Your task to perform on an android device: choose inbox layout in the gmail app Image 0: 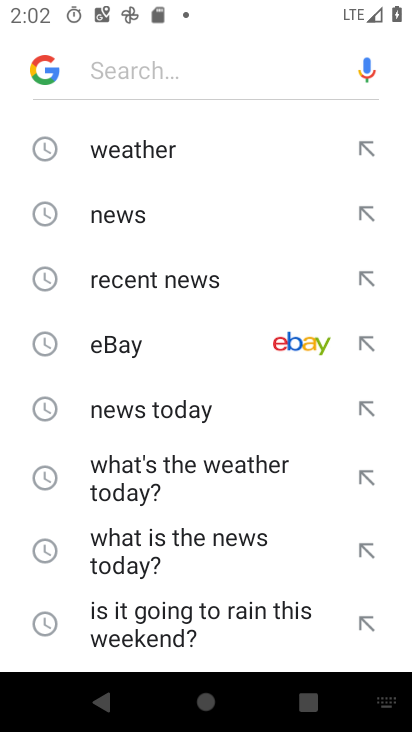
Step 0: press home button
Your task to perform on an android device: choose inbox layout in the gmail app Image 1: 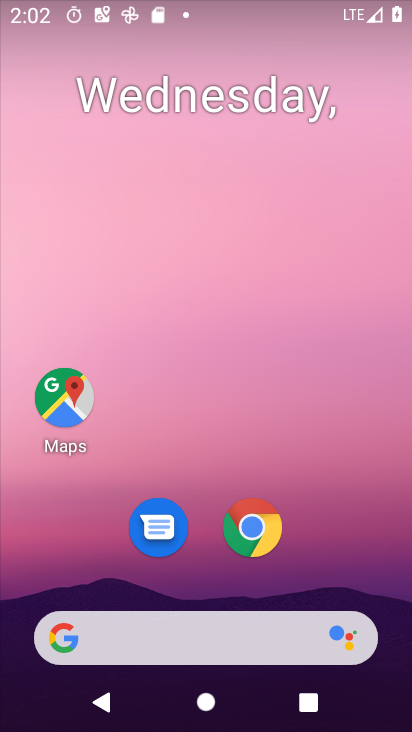
Step 1: drag from (233, 653) to (334, 172)
Your task to perform on an android device: choose inbox layout in the gmail app Image 2: 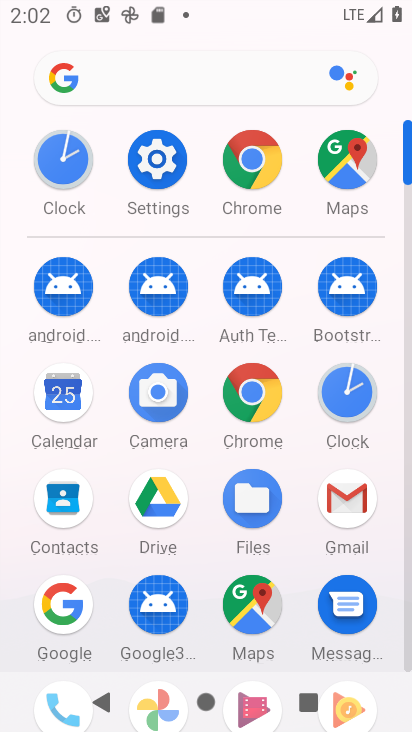
Step 2: click (335, 503)
Your task to perform on an android device: choose inbox layout in the gmail app Image 3: 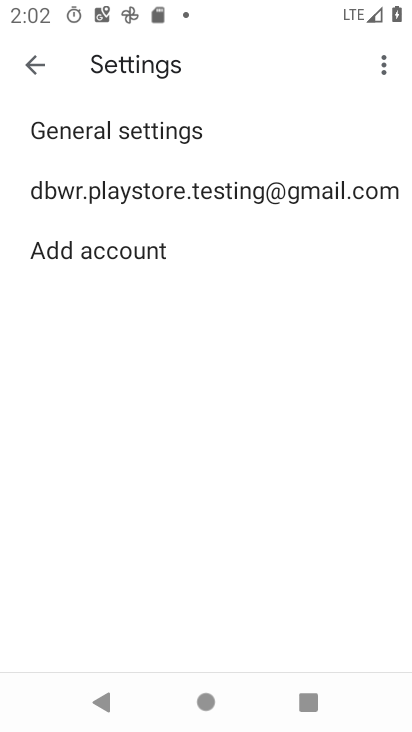
Step 3: click (277, 181)
Your task to perform on an android device: choose inbox layout in the gmail app Image 4: 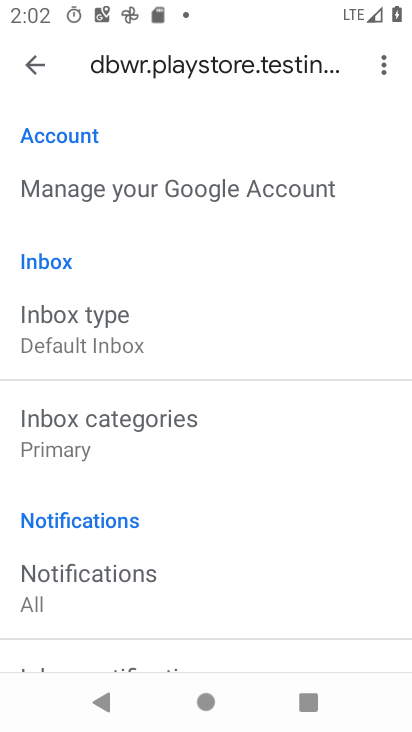
Step 4: task complete